Your task to perform on an android device: Search for the new steph curry shoes on Amazon. Image 0: 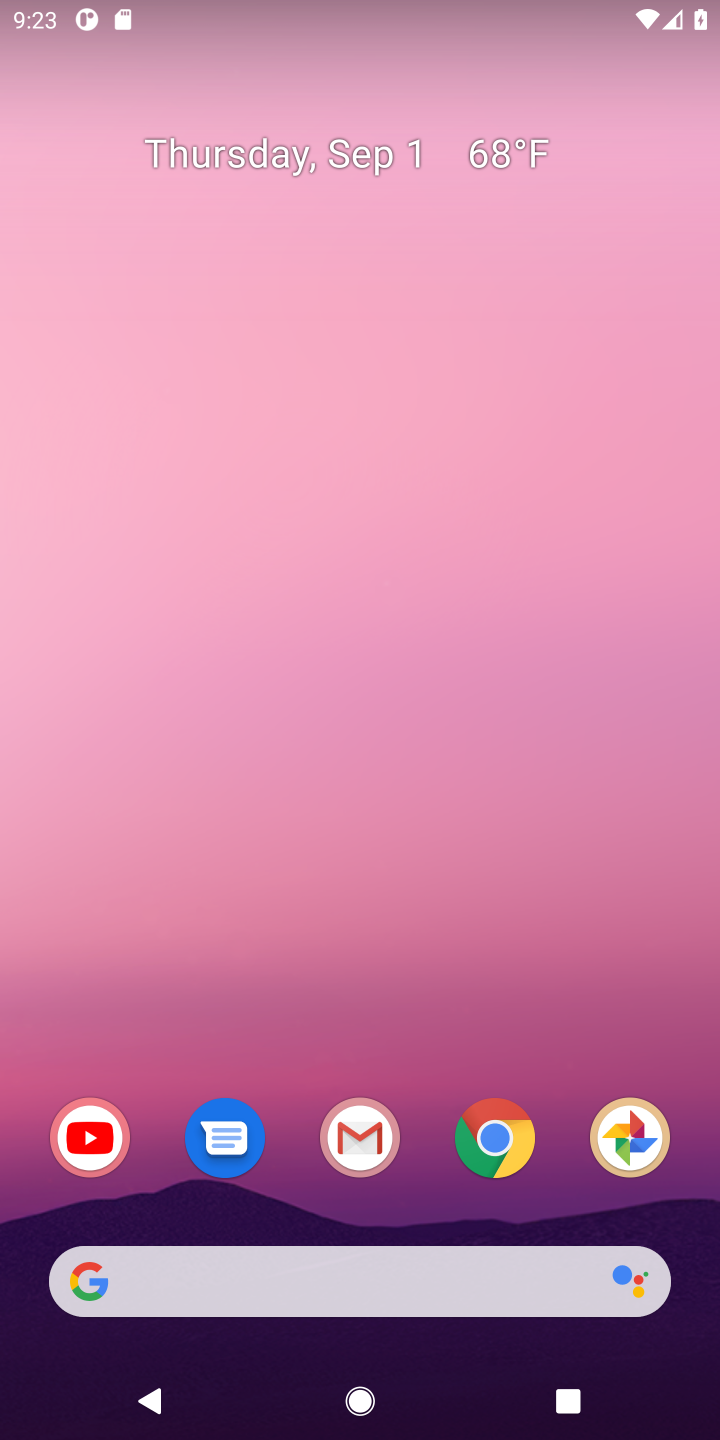
Step 0: click (509, 1127)
Your task to perform on an android device: Search for the new steph curry shoes on Amazon. Image 1: 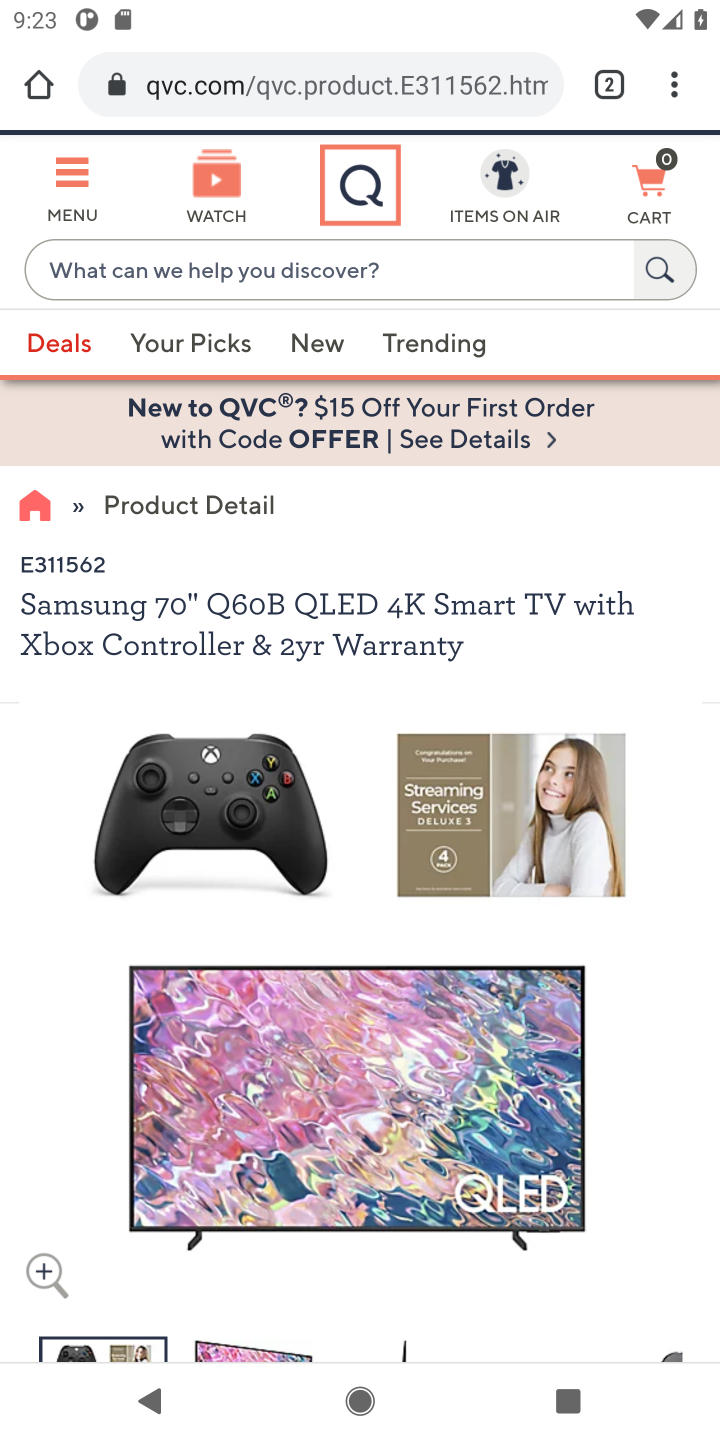
Step 1: click (404, 71)
Your task to perform on an android device: Search for the new steph curry shoes on Amazon. Image 2: 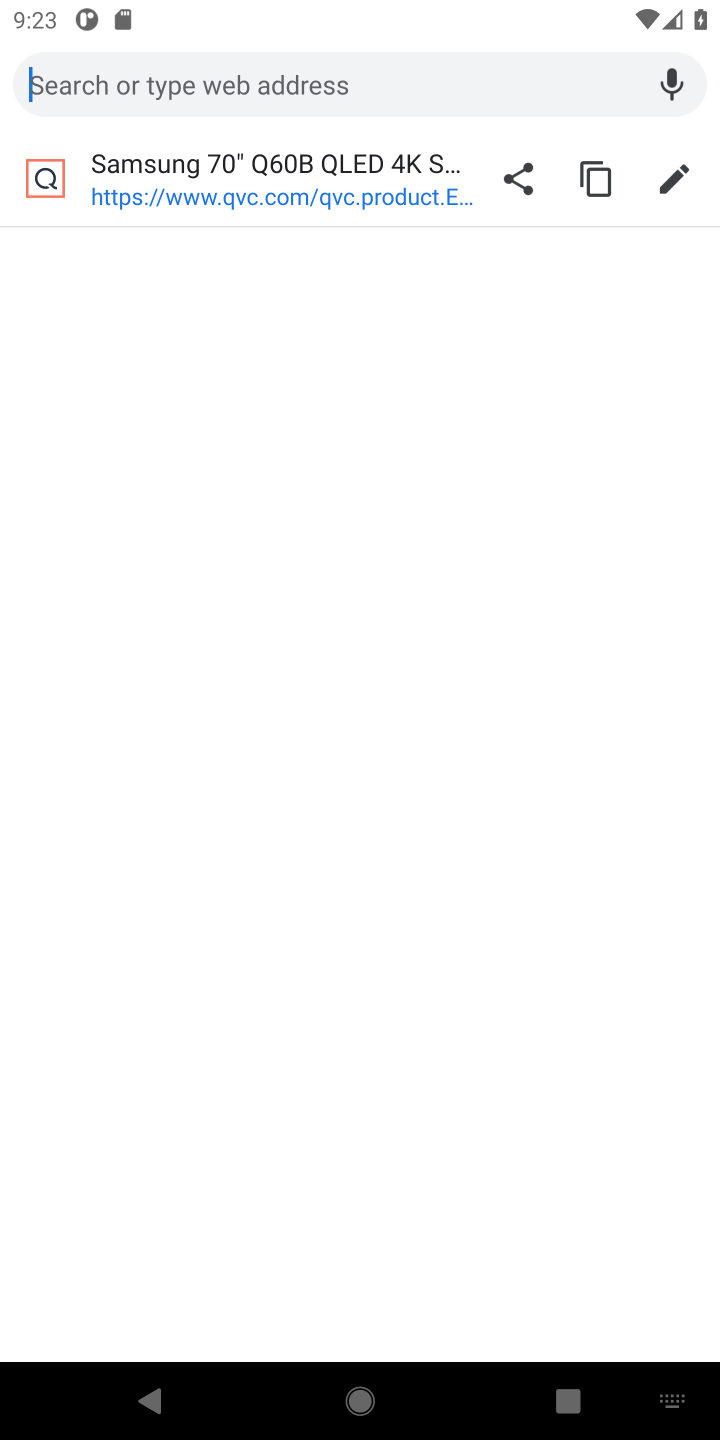
Step 2: press back button
Your task to perform on an android device: Search for the new steph curry shoes on Amazon. Image 3: 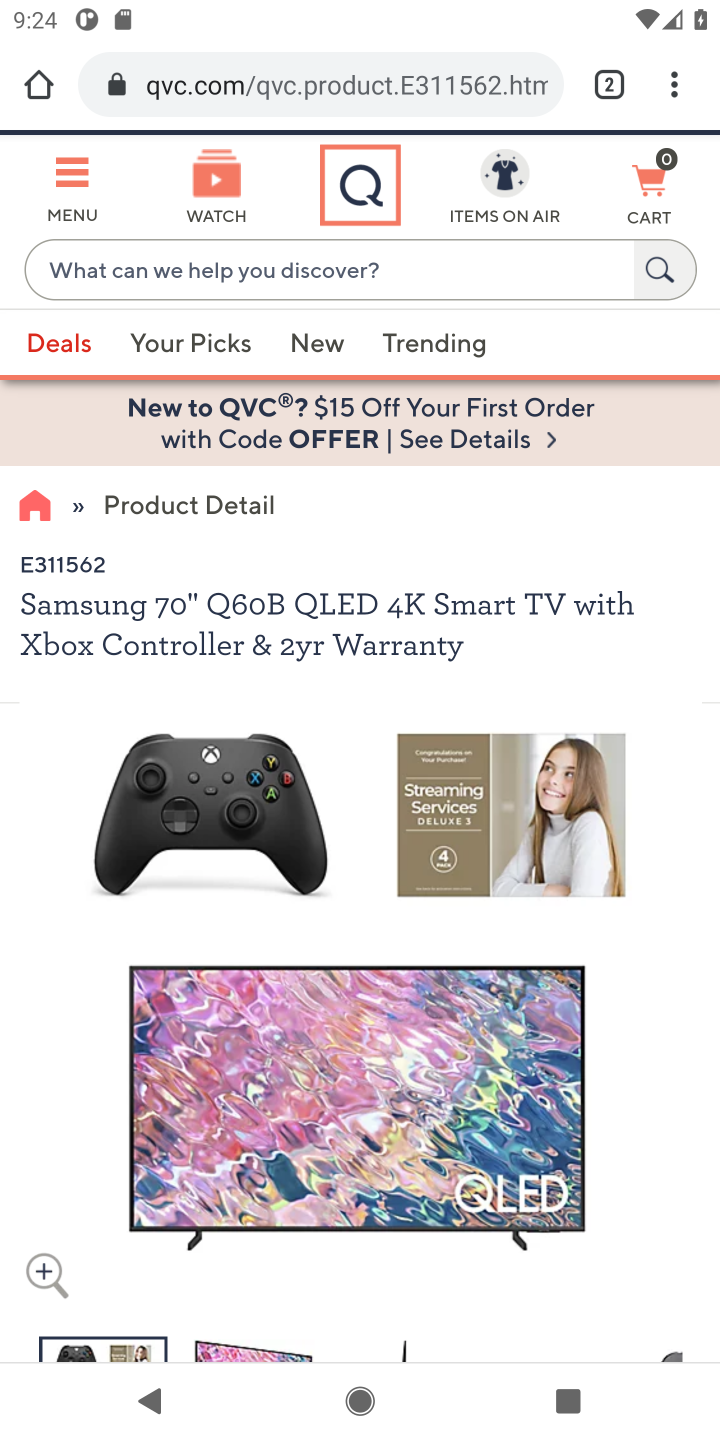
Step 3: press back button
Your task to perform on an android device: Search for the new steph curry shoes on Amazon. Image 4: 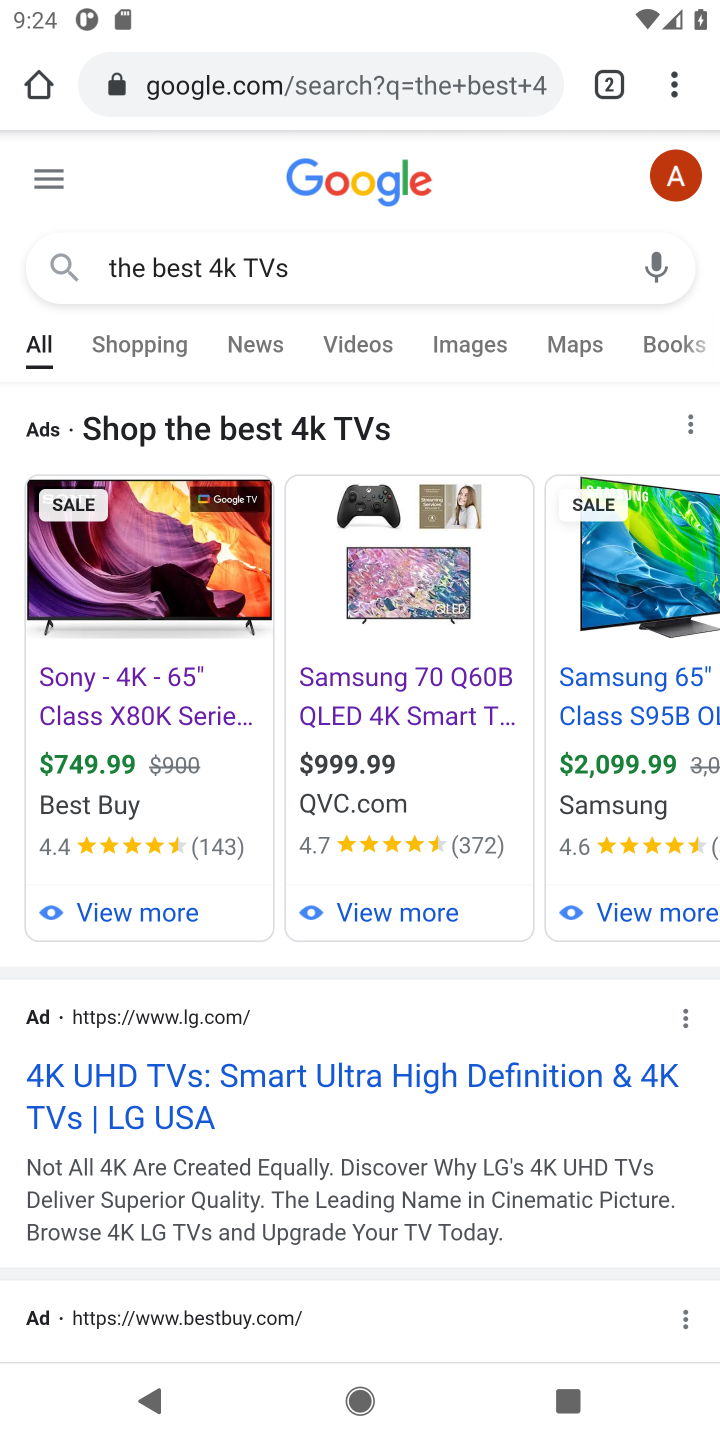
Step 4: press home button
Your task to perform on an android device: Search for the new steph curry shoes on Amazon. Image 5: 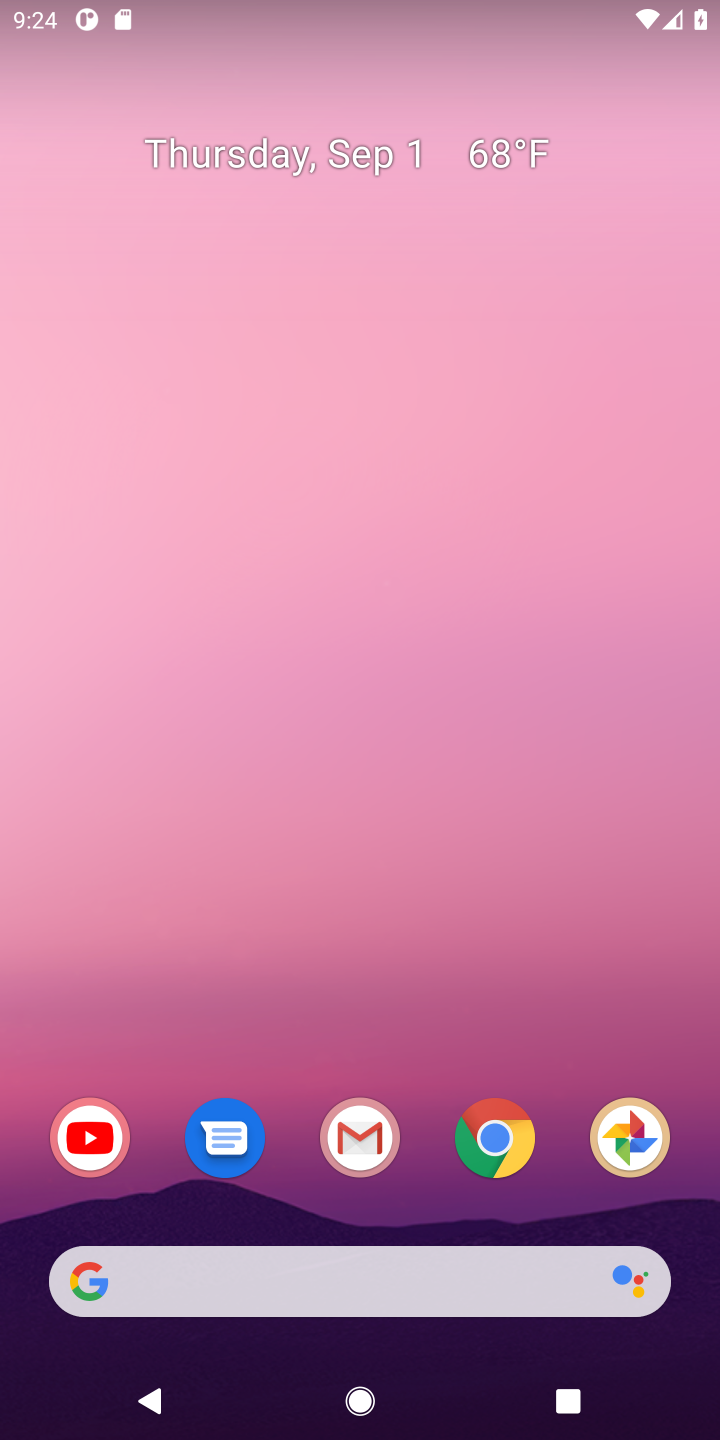
Step 5: click (492, 1156)
Your task to perform on an android device: Search for the new steph curry shoes on Amazon. Image 6: 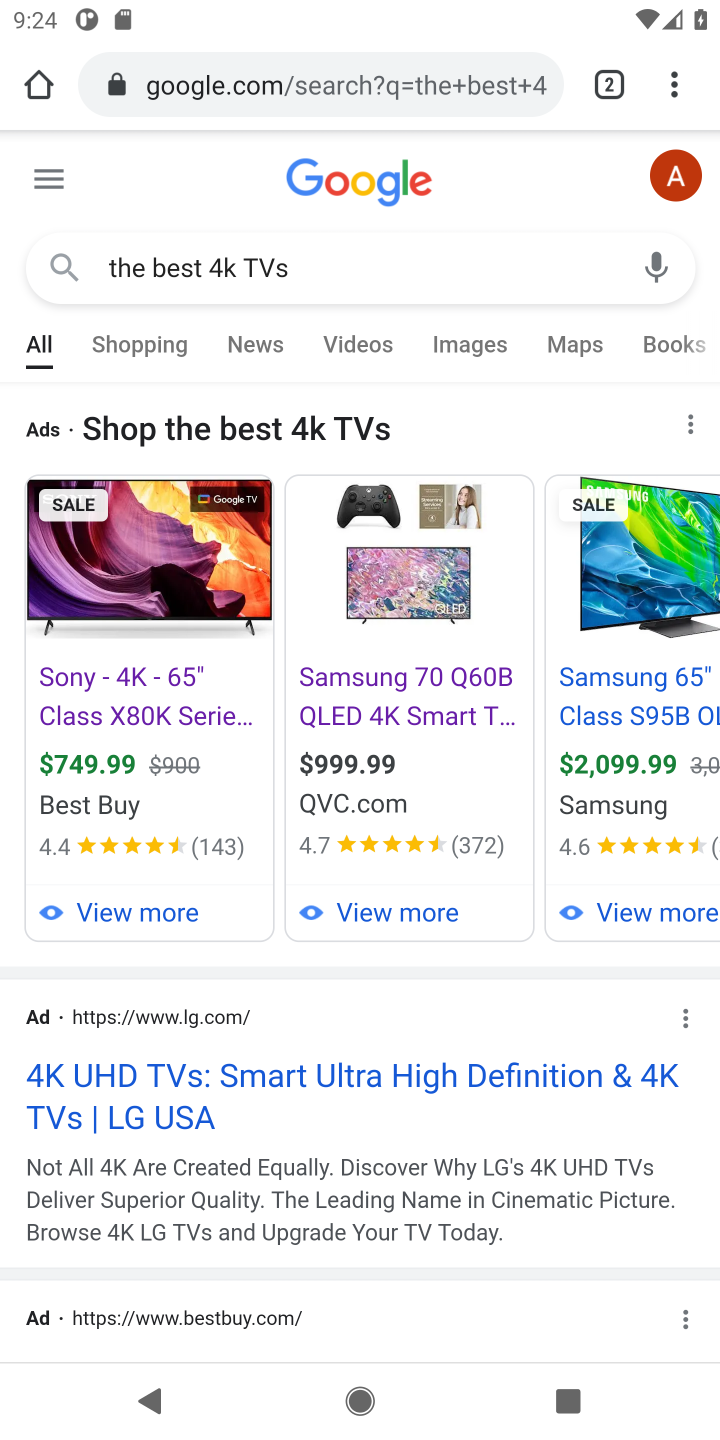
Step 6: click (600, 94)
Your task to perform on an android device: Search for the new steph curry shoes on Amazon. Image 7: 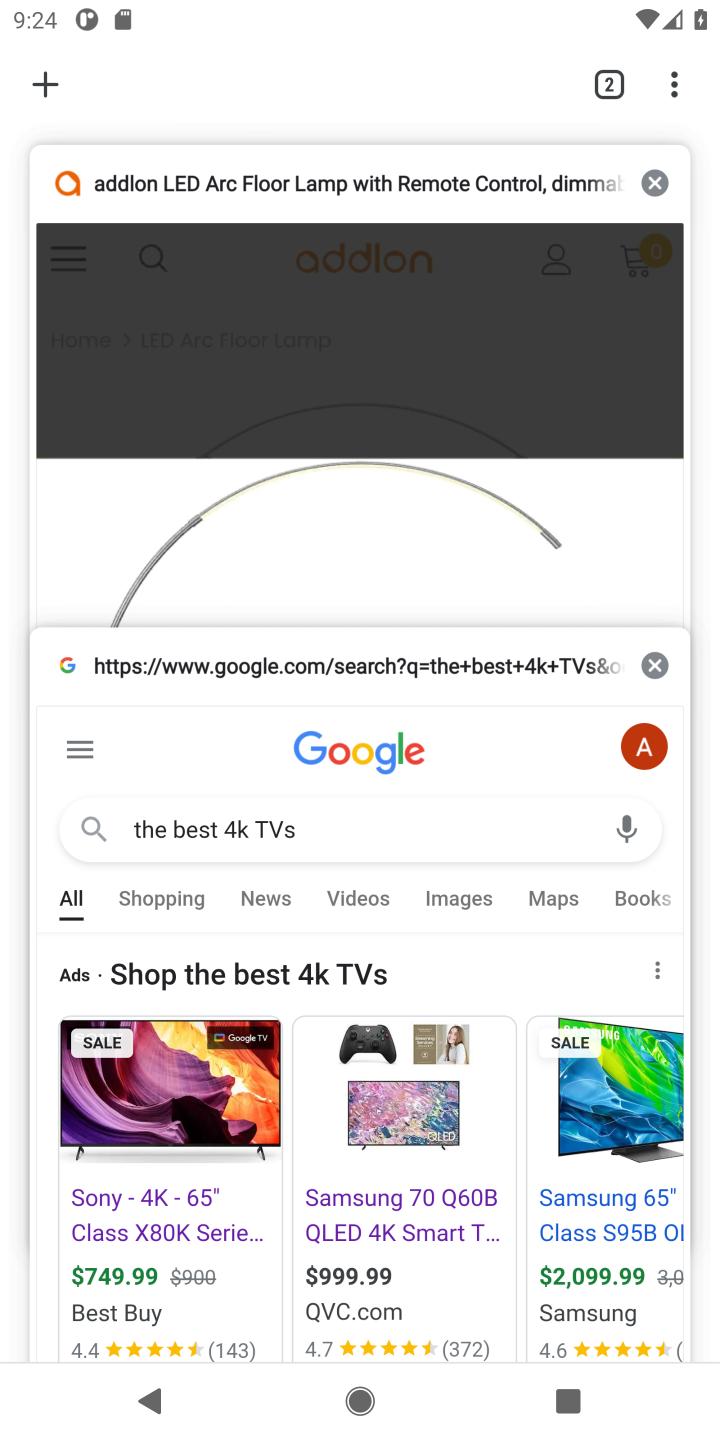
Step 7: click (664, 181)
Your task to perform on an android device: Search for the new steph curry shoes on Amazon. Image 8: 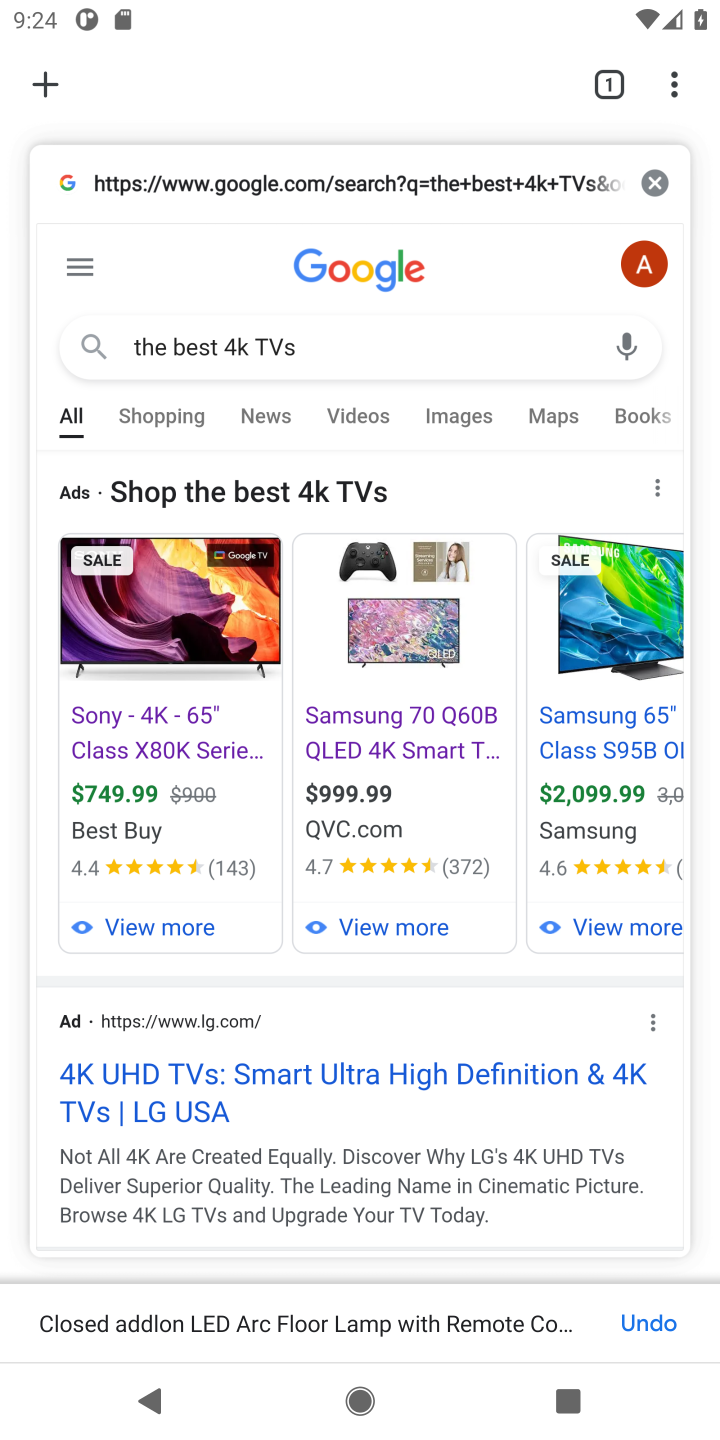
Step 8: click (652, 184)
Your task to perform on an android device: Search for the new steph curry shoes on Amazon. Image 9: 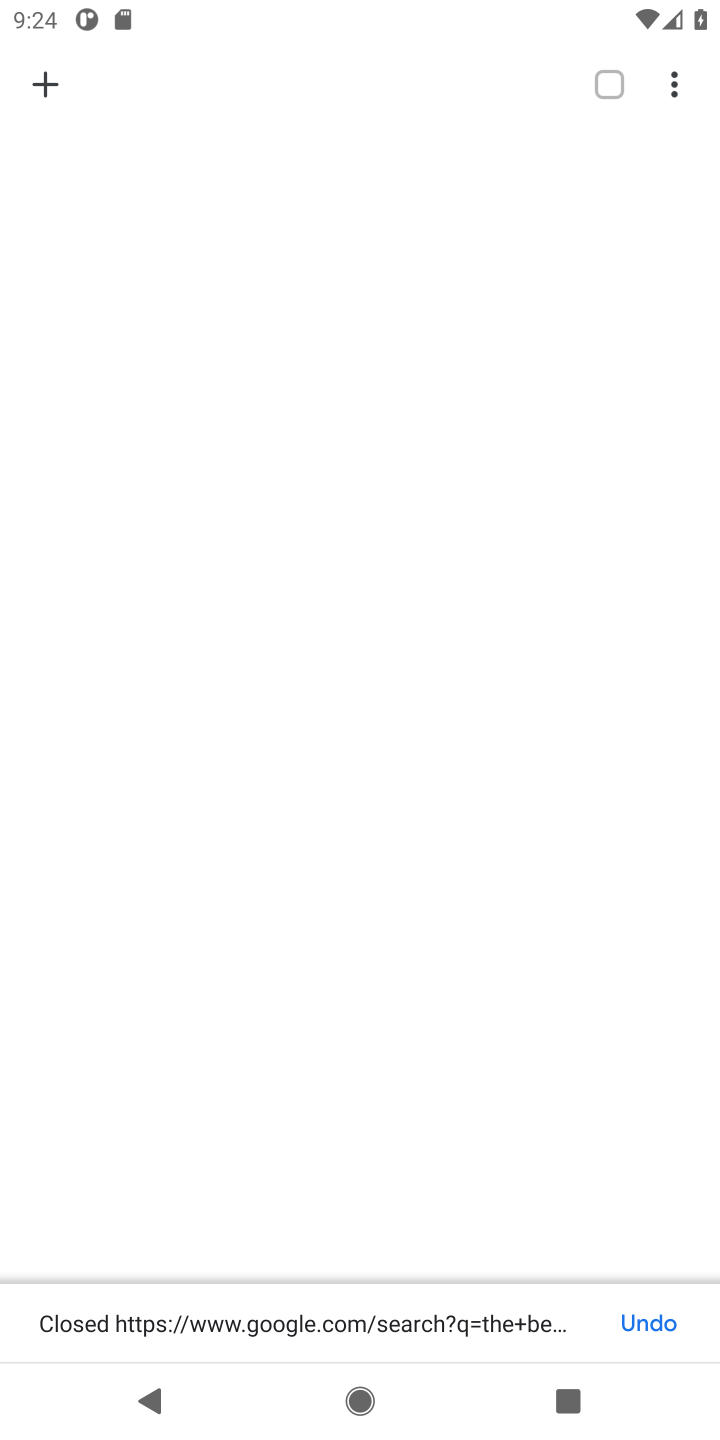
Step 9: click (50, 82)
Your task to perform on an android device: Search for the new steph curry shoes on Amazon. Image 10: 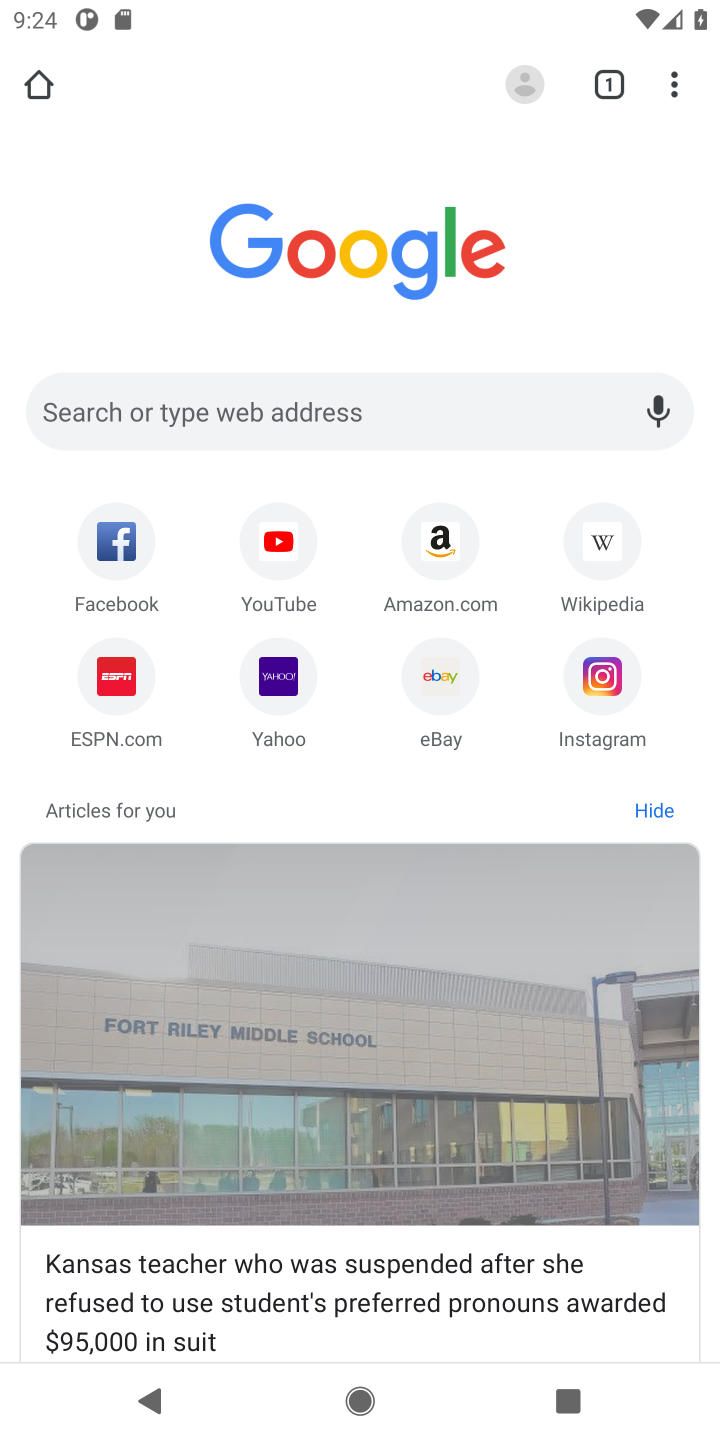
Step 10: click (427, 550)
Your task to perform on an android device: Search for the new steph curry shoes on Amazon. Image 11: 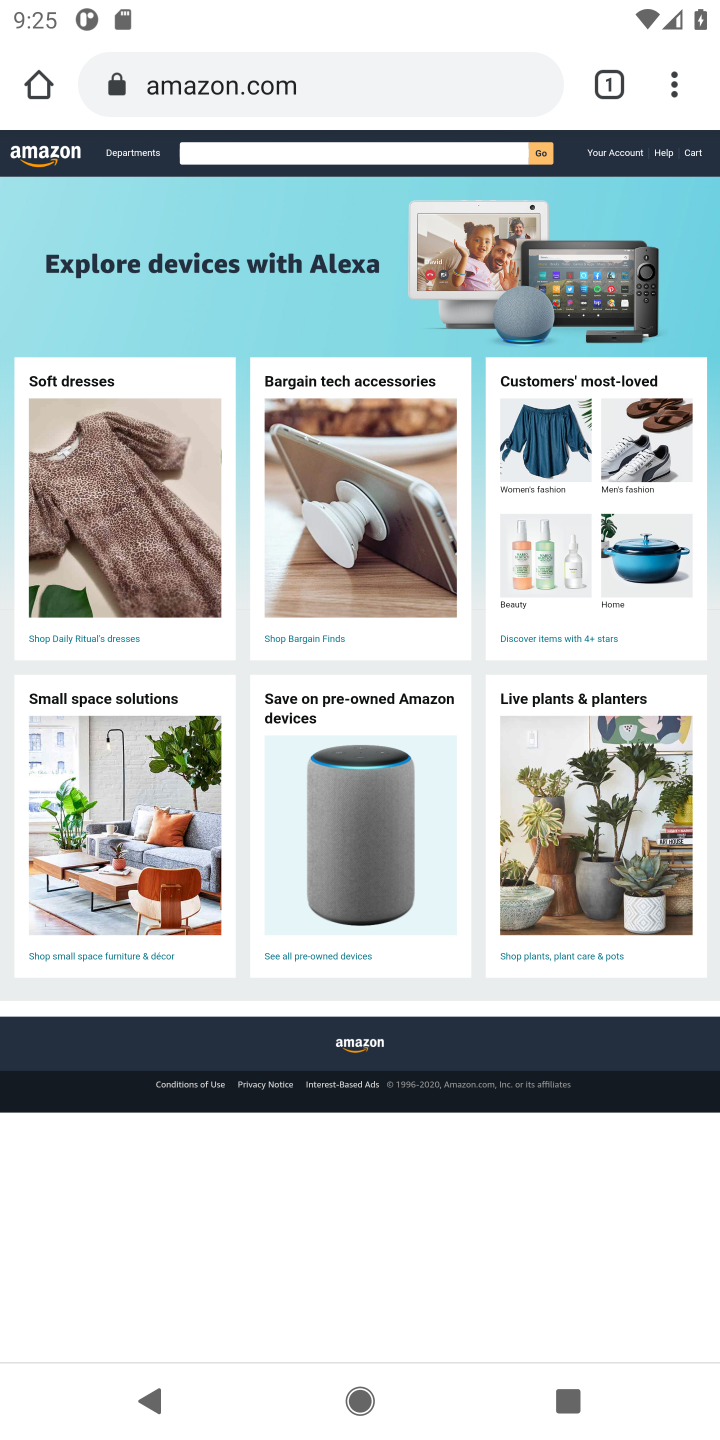
Step 11: click (317, 154)
Your task to perform on an android device: Search for the new steph curry shoes on Amazon. Image 12: 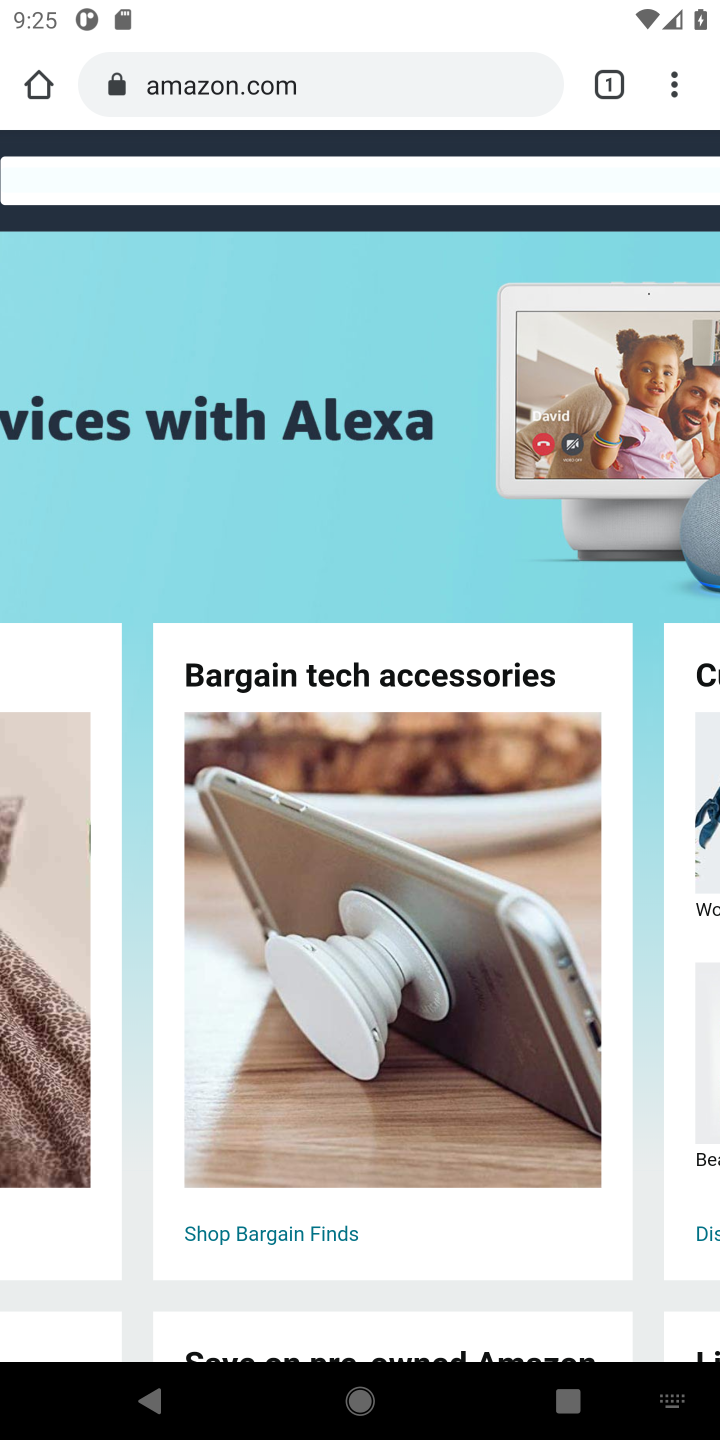
Step 12: type "the new steph curry shoes"
Your task to perform on an android device: Search for the new steph curry shoes on Amazon. Image 13: 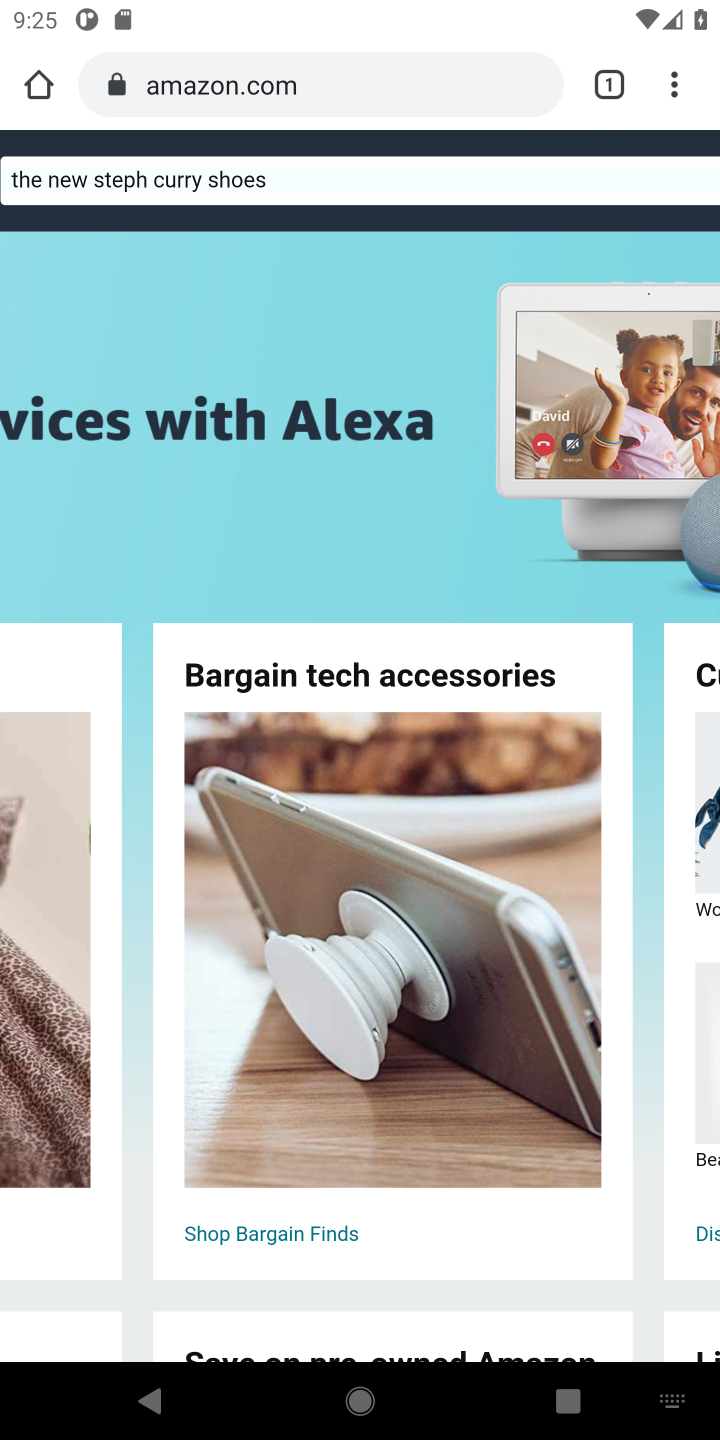
Step 13: task complete